Your task to perform on an android device: Open battery settings Image 0: 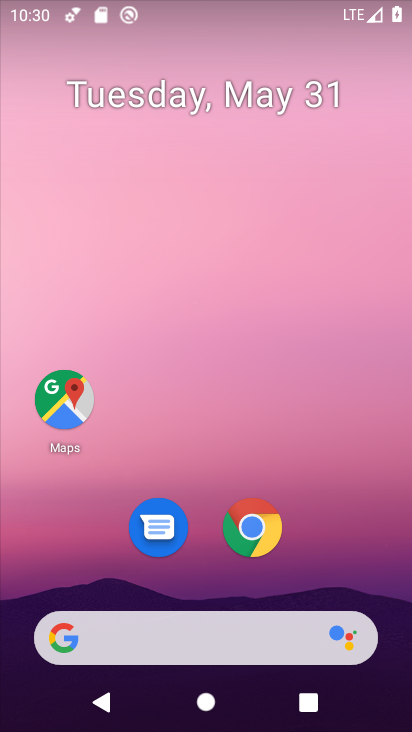
Step 0: drag from (357, 589) to (371, 53)
Your task to perform on an android device: Open battery settings Image 1: 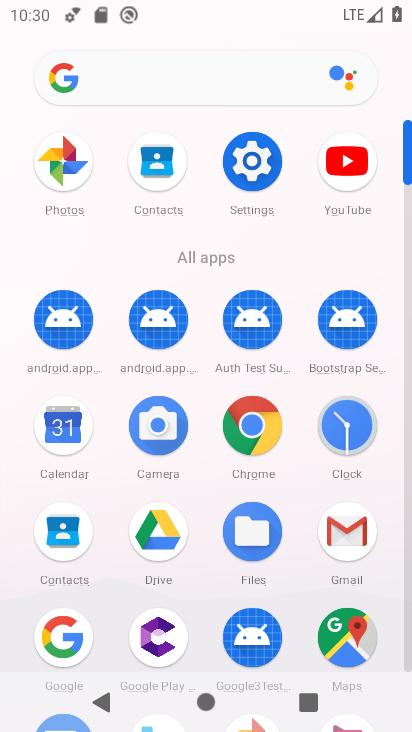
Step 1: click (253, 164)
Your task to perform on an android device: Open battery settings Image 2: 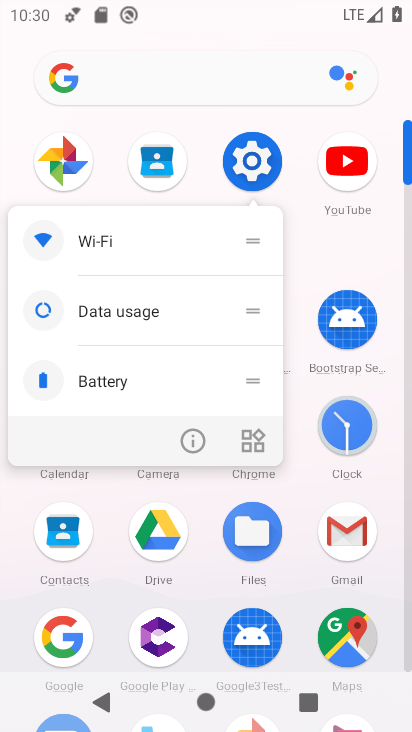
Step 2: click (253, 164)
Your task to perform on an android device: Open battery settings Image 3: 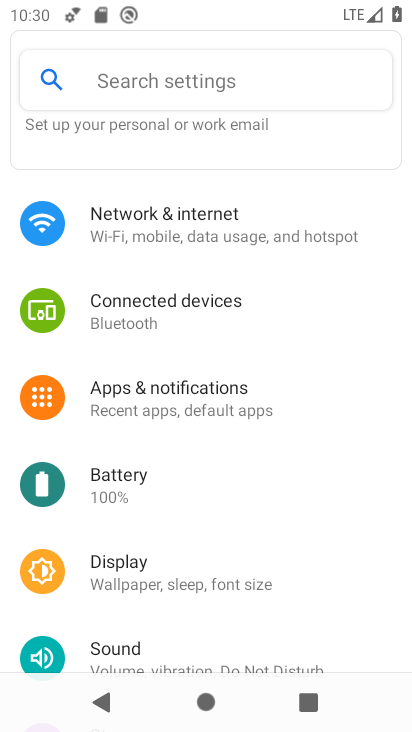
Step 3: click (93, 479)
Your task to perform on an android device: Open battery settings Image 4: 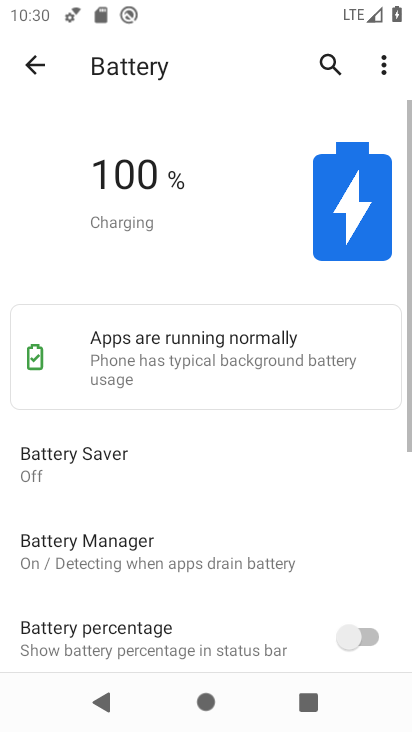
Step 4: task complete